Your task to perform on an android device: move an email to a new category in the gmail app Image 0: 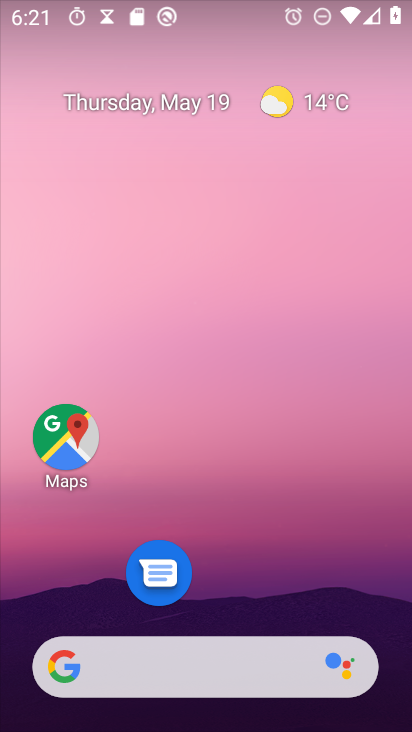
Step 0: drag from (244, 593) to (249, 21)
Your task to perform on an android device: move an email to a new category in the gmail app Image 1: 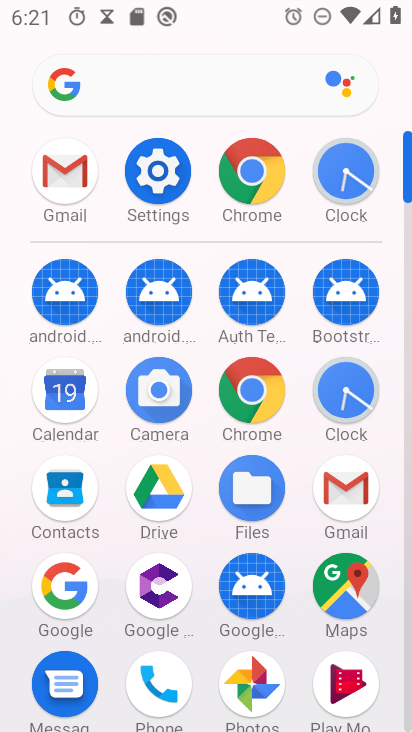
Step 1: click (75, 180)
Your task to perform on an android device: move an email to a new category in the gmail app Image 2: 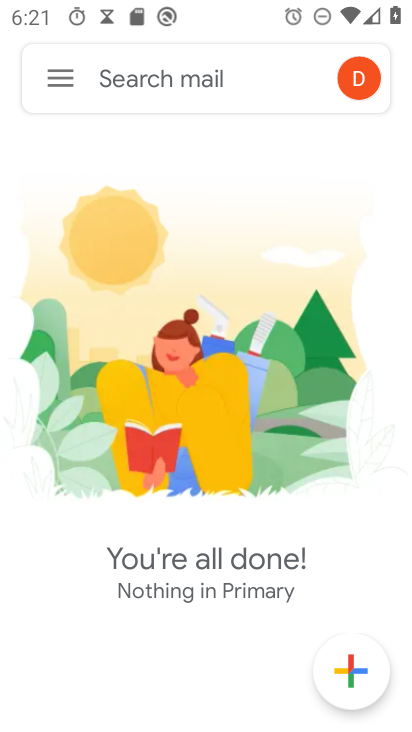
Step 2: click (68, 84)
Your task to perform on an android device: move an email to a new category in the gmail app Image 3: 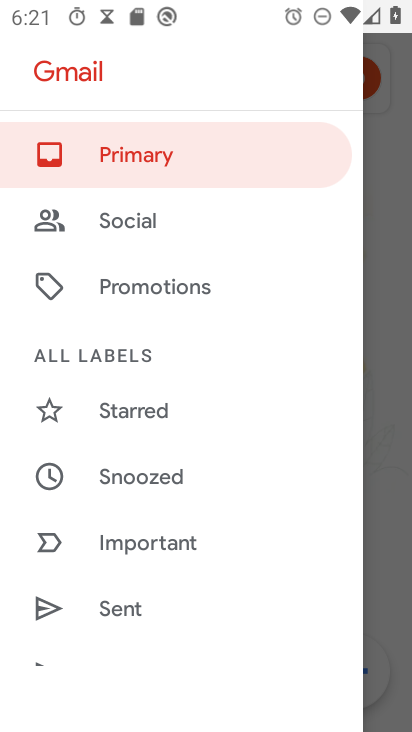
Step 3: drag from (227, 282) to (232, 619)
Your task to perform on an android device: move an email to a new category in the gmail app Image 4: 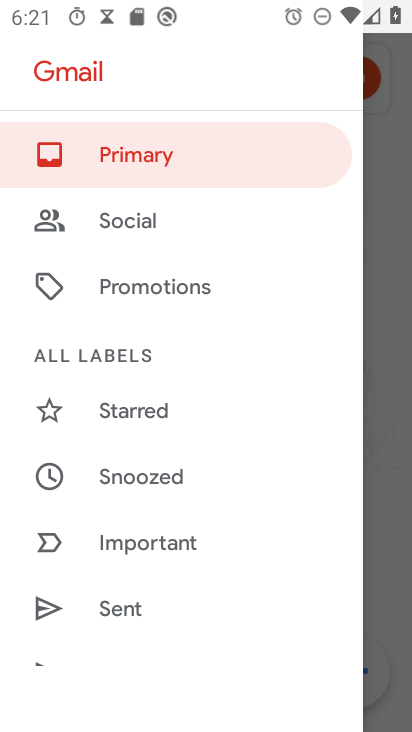
Step 4: drag from (140, 597) to (148, 321)
Your task to perform on an android device: move an email to a new category in the gmail app Image 5: 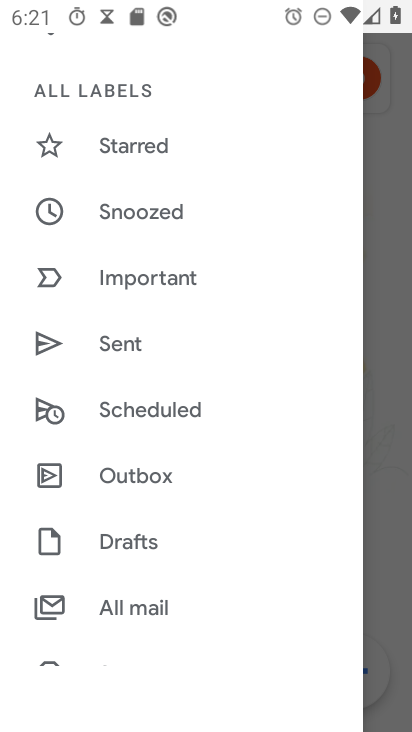
Step 5: click (134, 613)
Your task to perform on an android device: move an email to a new category in the gmail app Image 6: 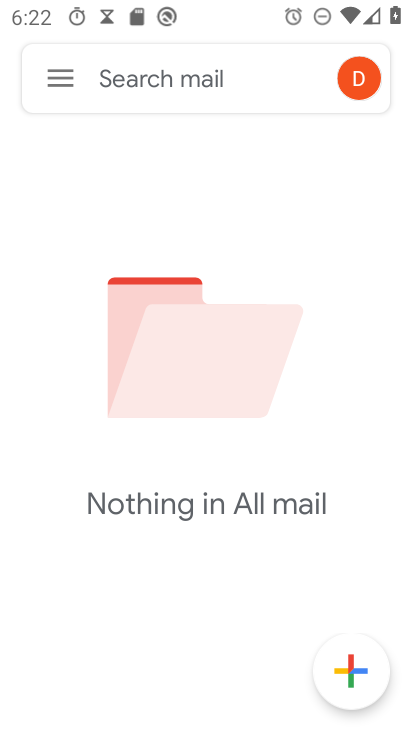
Step 6: task complete